Your task to perform on an android device: change notification settings in the gmail app Image 0: 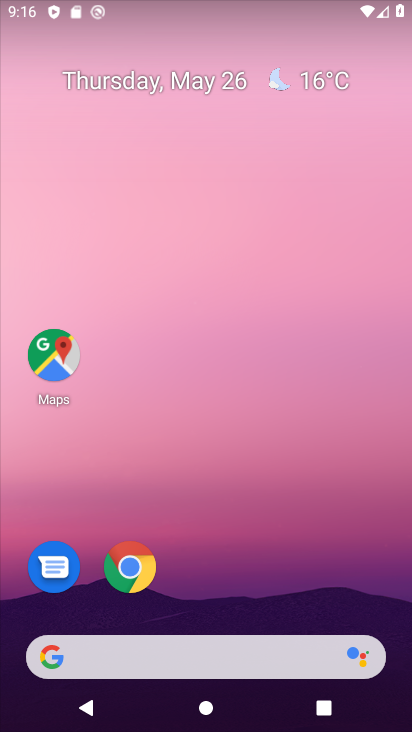
Step 0: drag from (384, 693) to (270, 98)
Your task to perform on an android device: change notification settings in the gmail app Image 1: 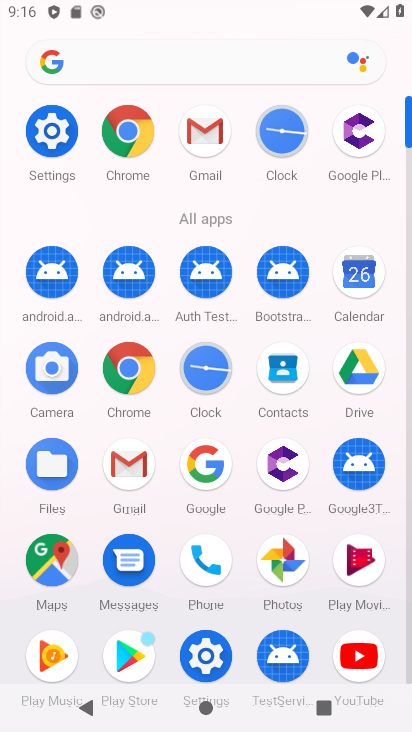
Step 1: click (197, 124)
Your task to perform on an android device: change notification settings in the gmail app Image 2: 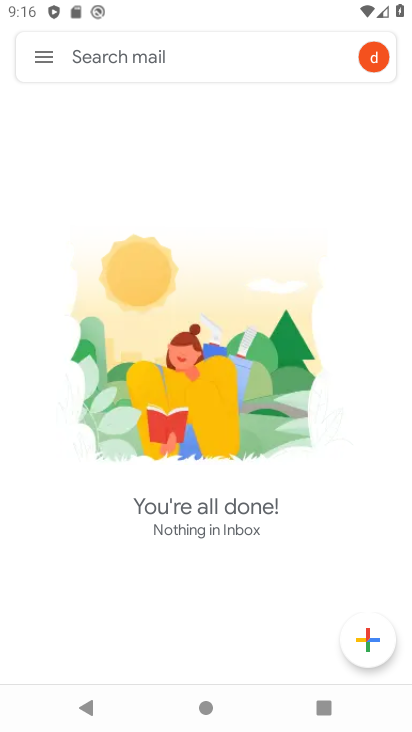
Step 2: click (47, 54)
Your task to perform on an android device: change notification settings in the gmail app Image 3: 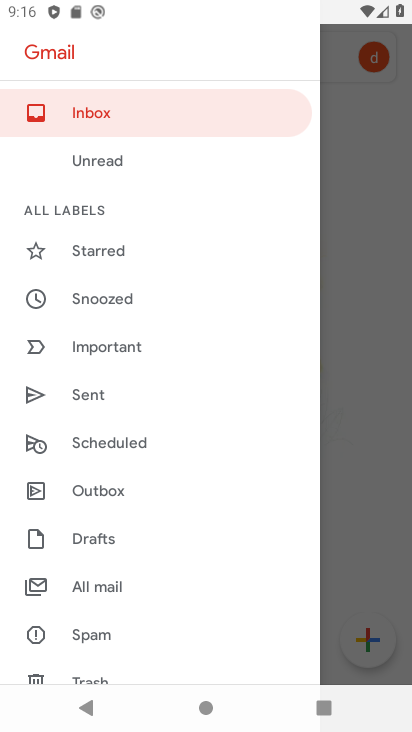
Step 3: drag from (196, 659) to (161, 107)
Your task to perform on an android device: change notification settings in the gmail app Image 4: 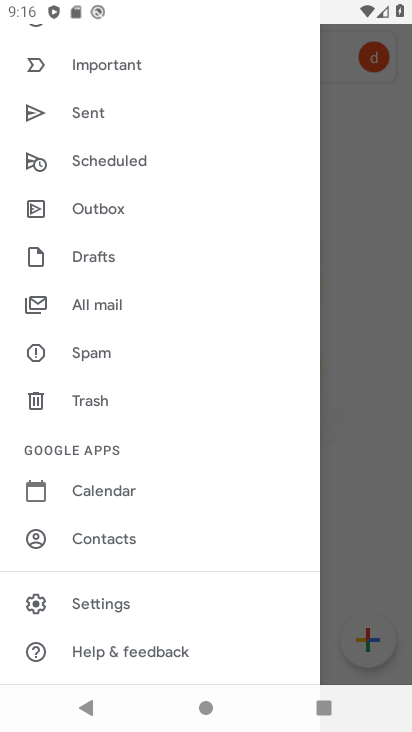
Step 4: click (107, 596)
Your task to perform on an android device: change notification settings in the gmail app Image 5: 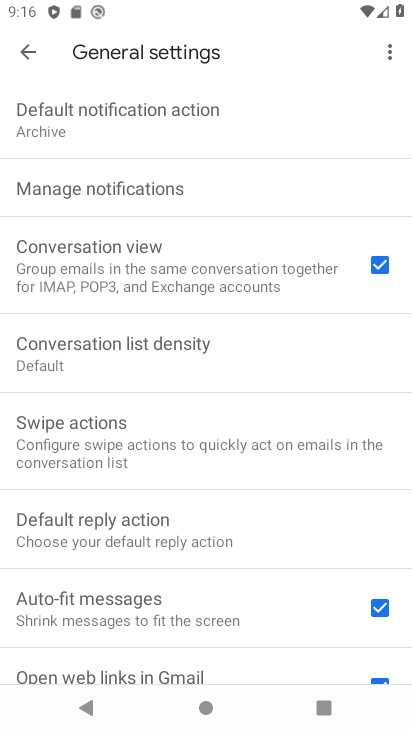
Step 5: click (58, 195)
Your task to perform on an android device: change notification settings in the gmail app Image 6: 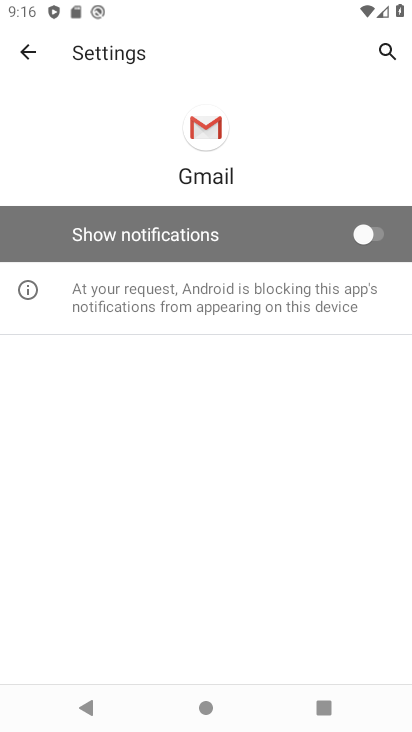
Step 6: click (378, 244)
Your task to perform on an android device: change notification settings in the gmail app Image 7: 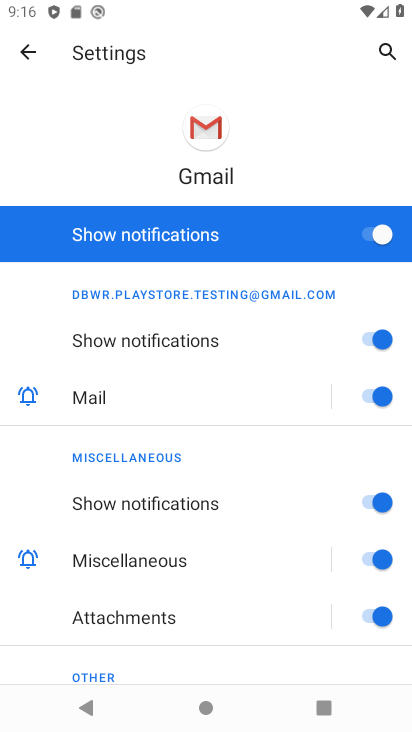
Step 7: task complete